Your task to perform on an android device: turn on wifi Image 0: 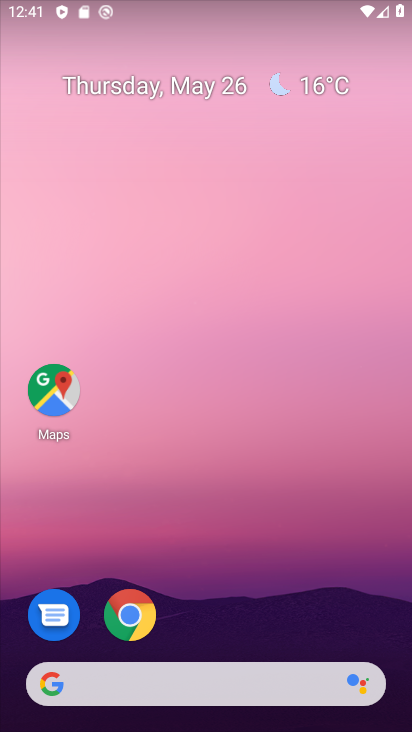
Step 0: drag from (205, 614) to (232, 57)
Your task to perform on an android device: turn on wifi Image 1: 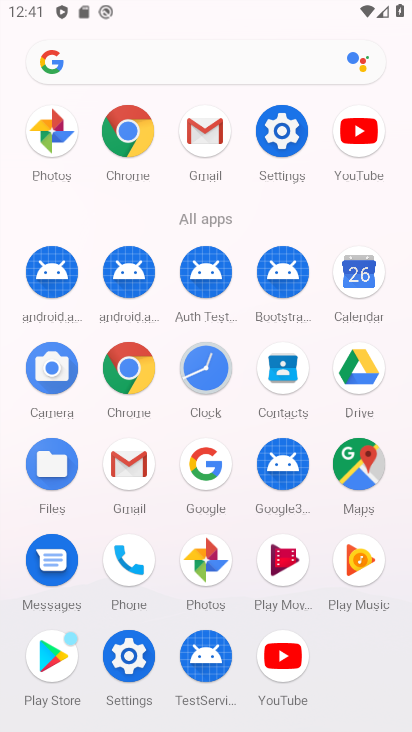
Step 1: click (280, 107)
Your task to perform on an android device: turn on wifi Image 2: 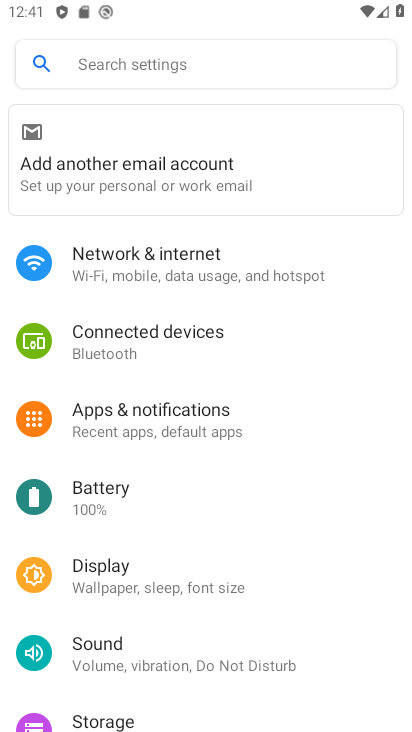
Step 2: click (180, 285)
Your task to perform on an android device: turn on wifi Image 3: 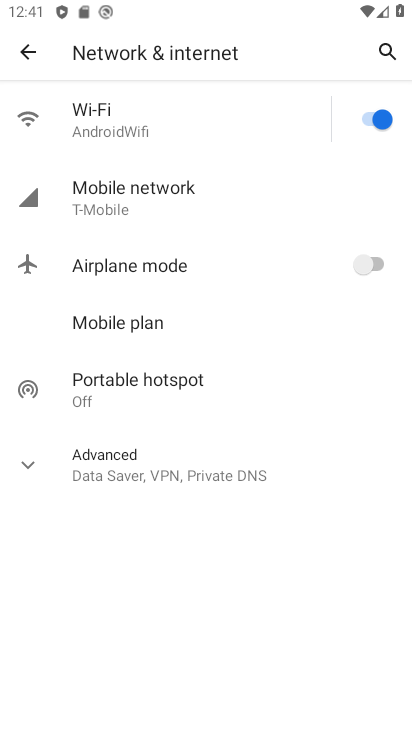
Step 3: task complete